Your task to perform on an android device: Open the web browser Image 0: 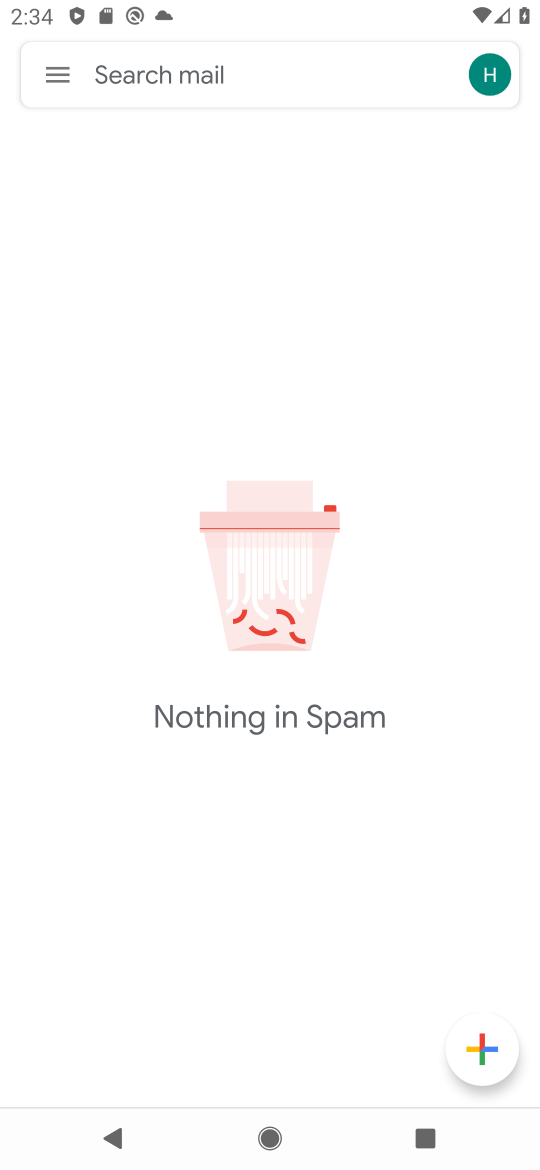
Step 0: press home button
Your task to perform on an android device: Open the web browser Image 1: 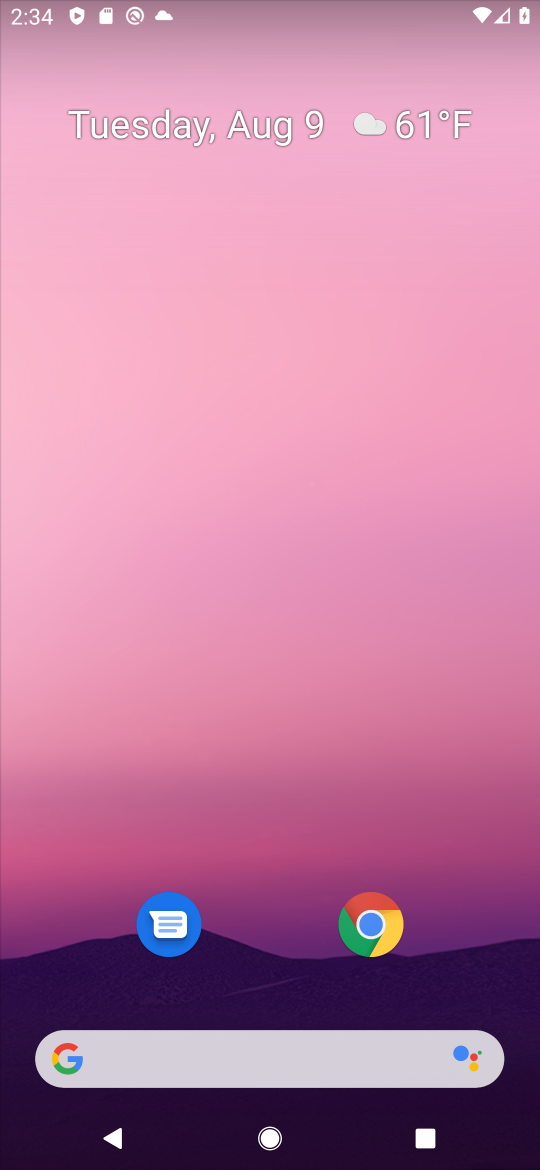
Step 1: click (348, 1063)
Your task to perform on an android device: Open the web browser Image 2: 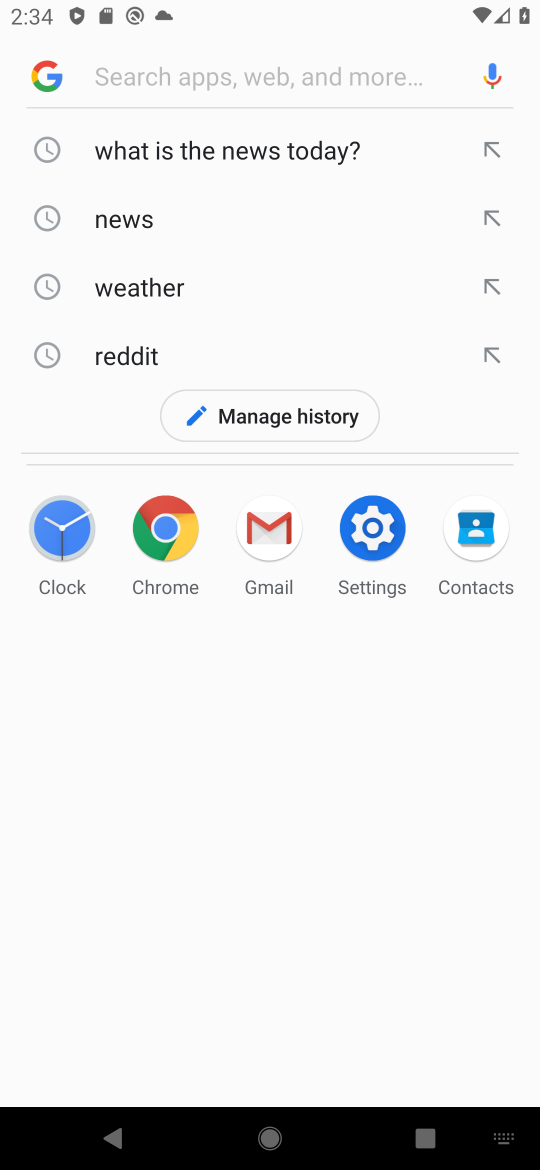
Step 2: task complete